Your task to perform on an android device: What's the weather today? Image 0: 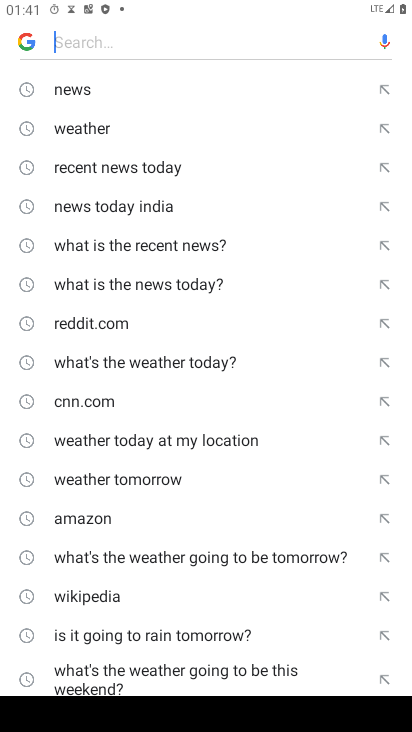
Step 0: click (83, 127)
Your task to perform on an android device: What's the weather today? Image 1: 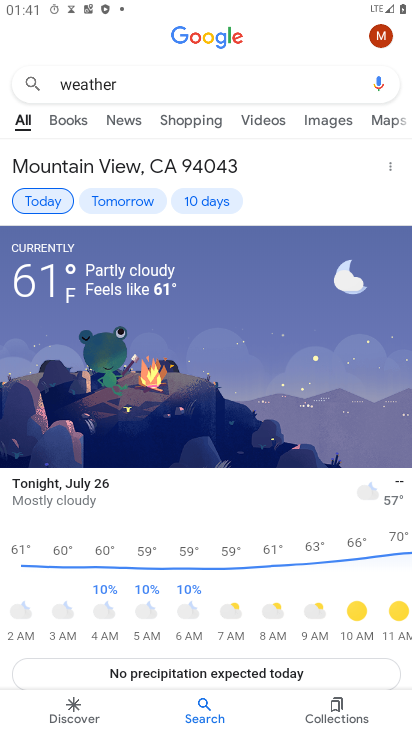
Step 1: task complete